Your task to perform on an android device: View the shopping cart on walmart.com. Add usb-c to usb-a to the cart on walmart.com Image 0: 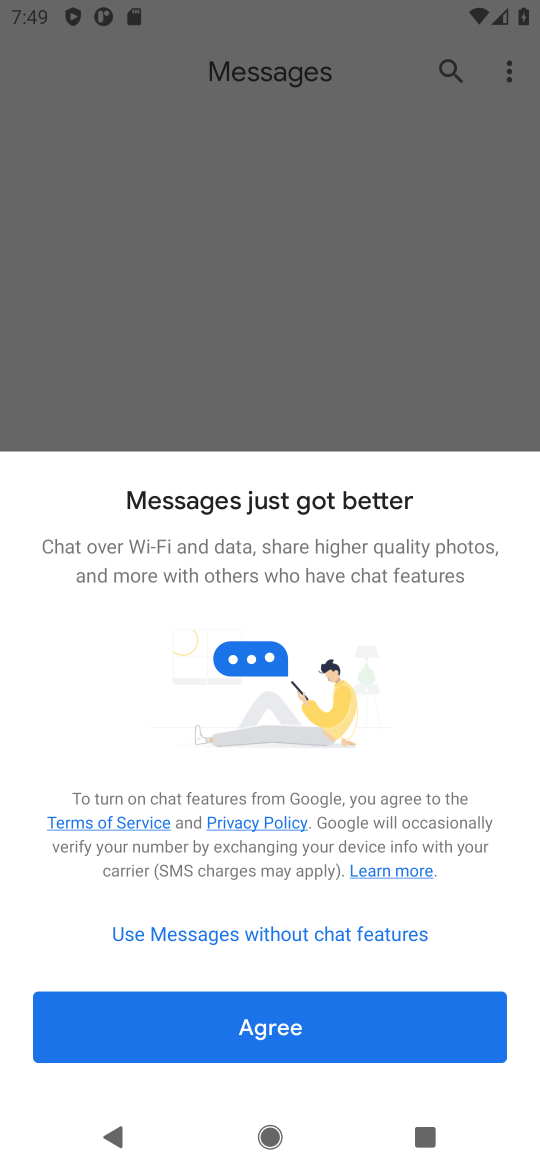
Step 0: press home button
Your task to perform on an android device: View the shopping cart on walmart.com. Add usb-c to usb-a to the cart on walmart.com Image 1: 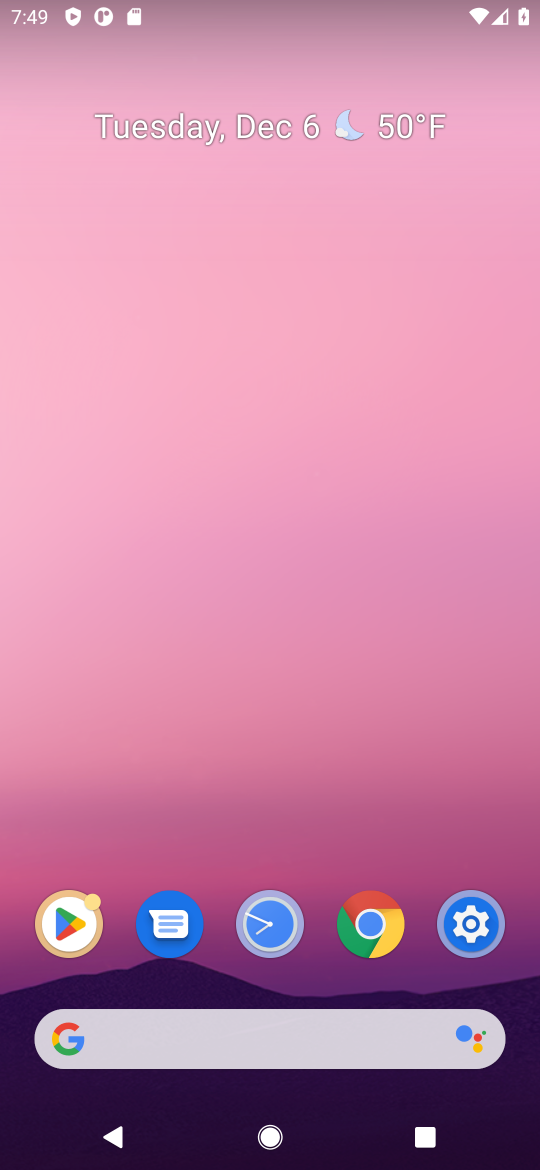
Step 1: click (296, 1036)
Your task to perform on an android device: View the shopping cart on walmart.com. Add usb-c to usb-a to the cart on walmart.com Image 2: 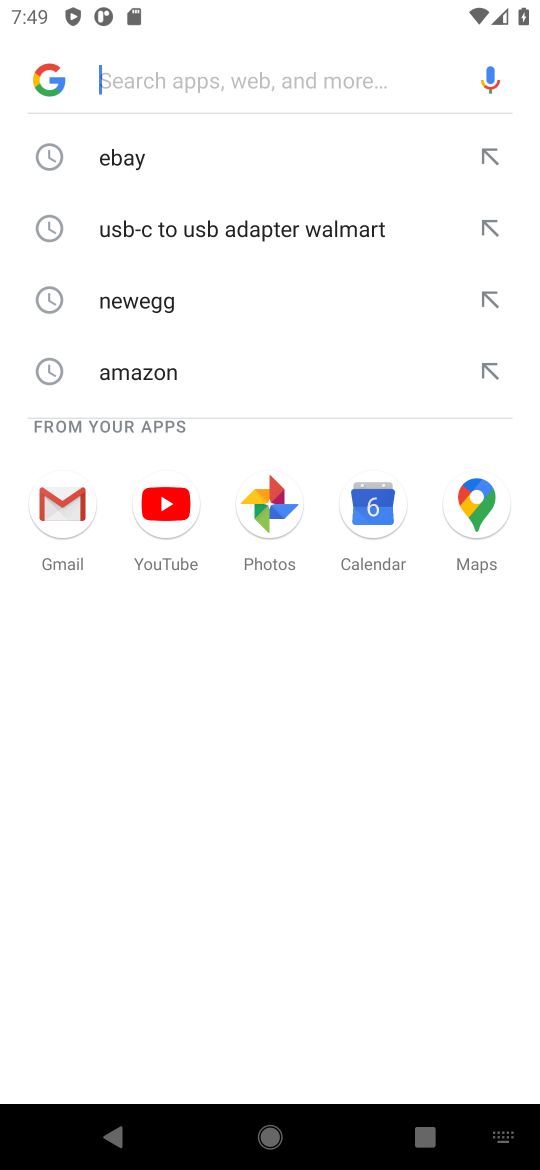
Step 2: type "walmart"
Your task to perform on an android device: View the shopping cart on walmart.com. Add usb-c to usb-a to the cart on walmart.com Image 3: 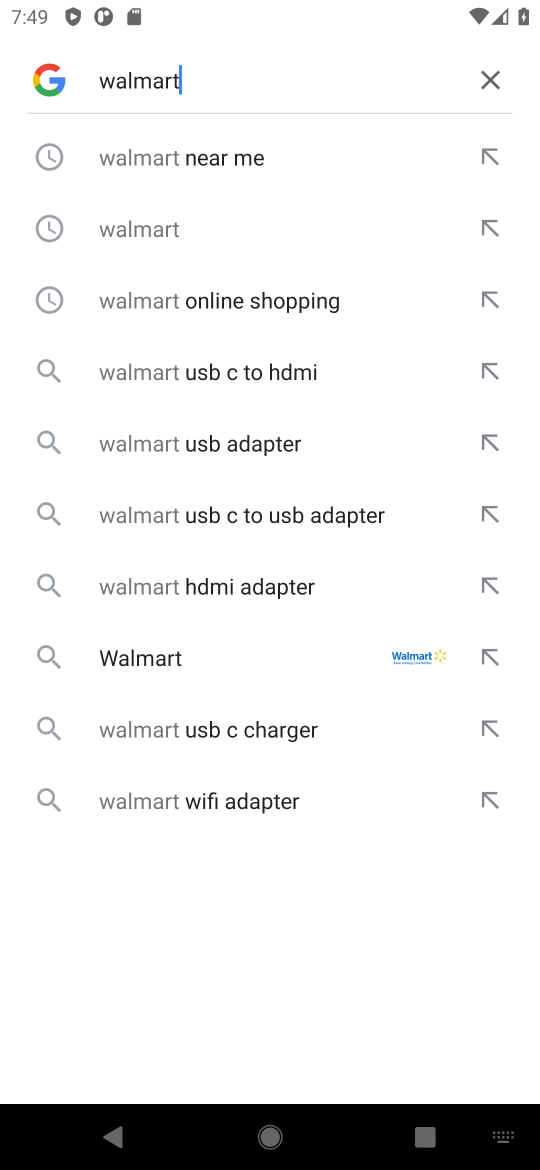
Step 3: click (120, 144)
Your task to perform on an android device: View the shopping cart on walmart.com. Add usb-c to usb-a to the cart on walmart.com Image 4: 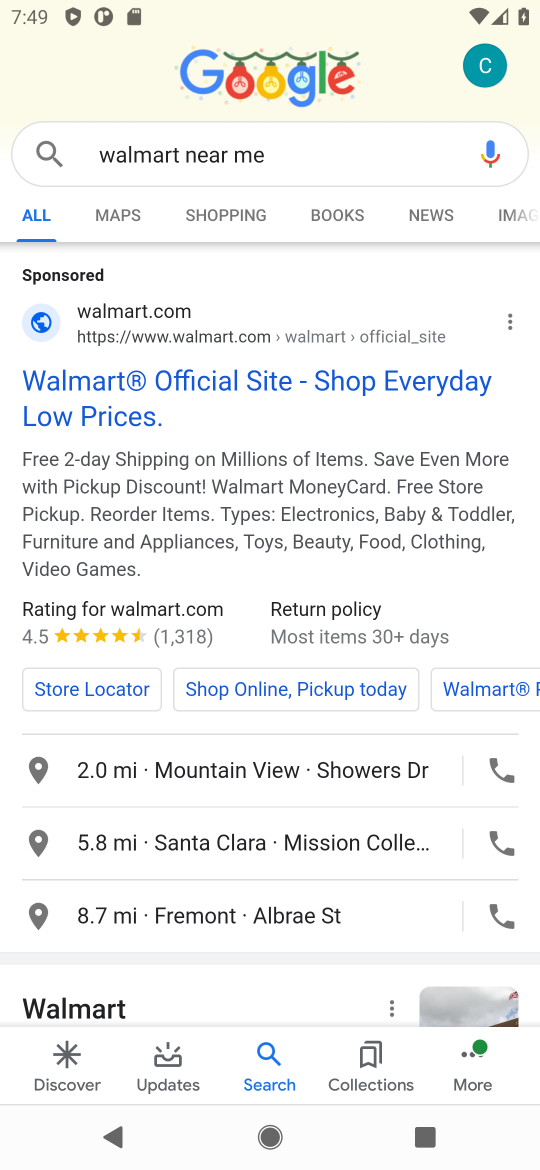
Step 4: click (74, 415)
Your task to perform on an android device: View the shopping cart on walmart.com. Add usb-c to usb-a to the cart on walmart.com Image 5: 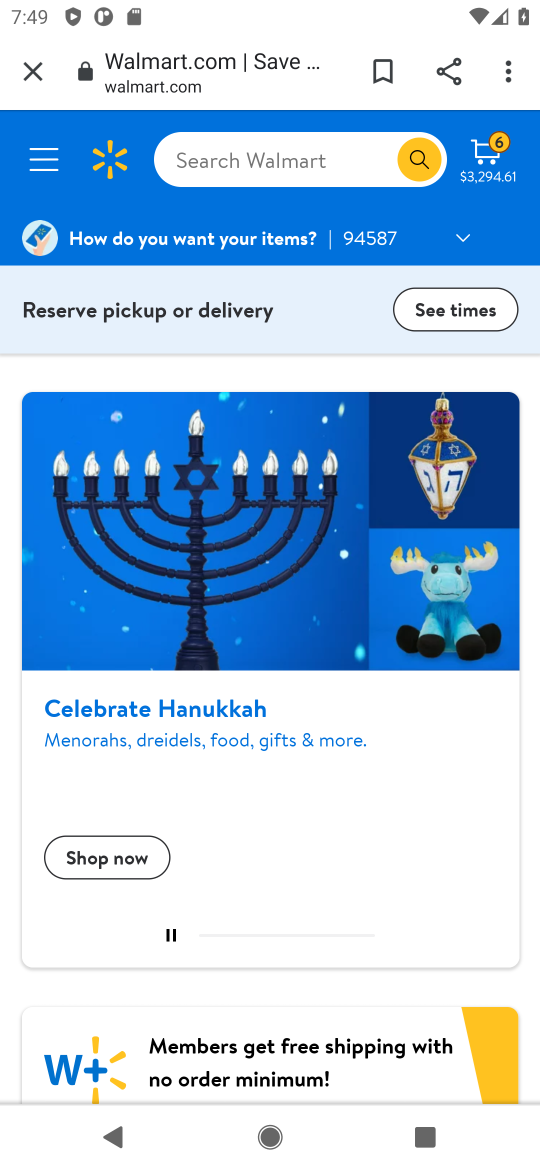
Step 5: click (232, 158)
Your task to perform on an android device: View the shopping cart on walmart.com. Add usb-c to usb-a to the cart on walmart.com Image 6: 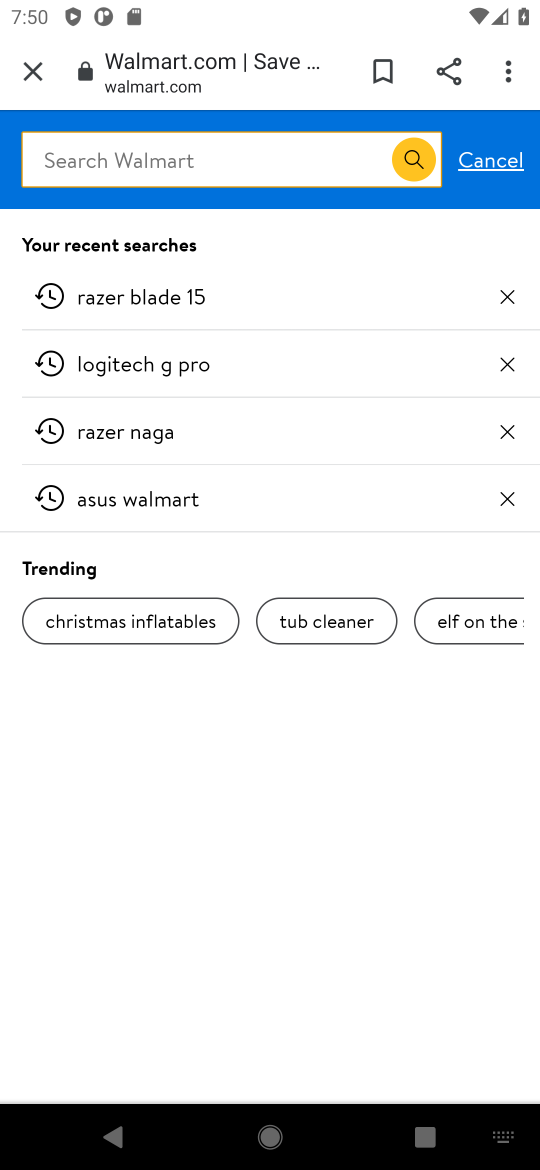
Step 6: type "usb-c to usb-a"
Your task to perform on an android device: View the shopping cart on walmart.com. Add usb-c to usb-a to the cart on walmart.com Image 7: 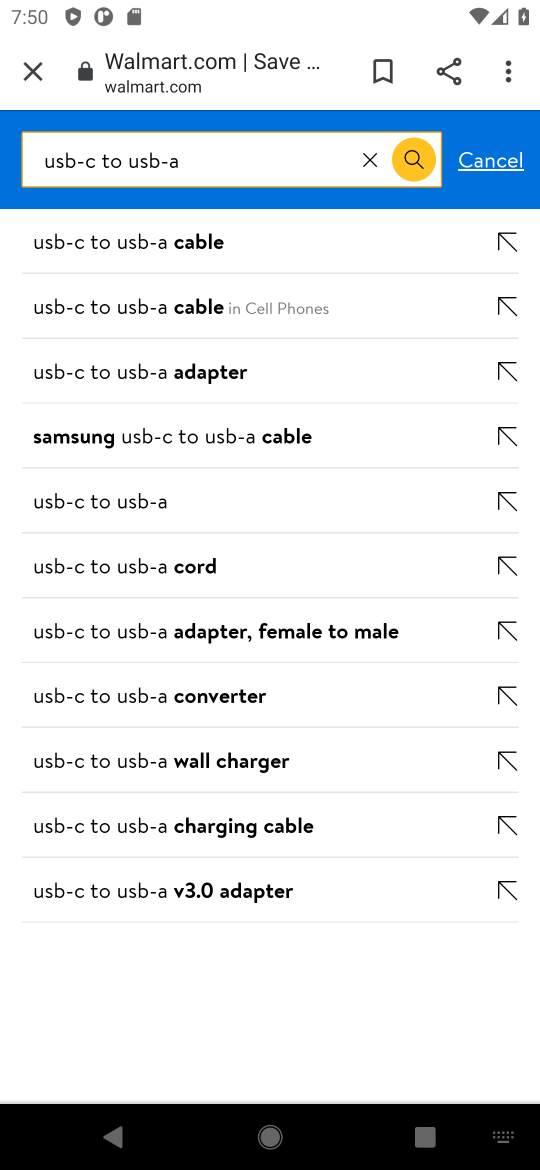
Step 7: click (230, 262)
Your task to perform on an android device: View the shopping cart on walmart.com. Add usb-c to usb-a to the cart on walmart.com Image 8: 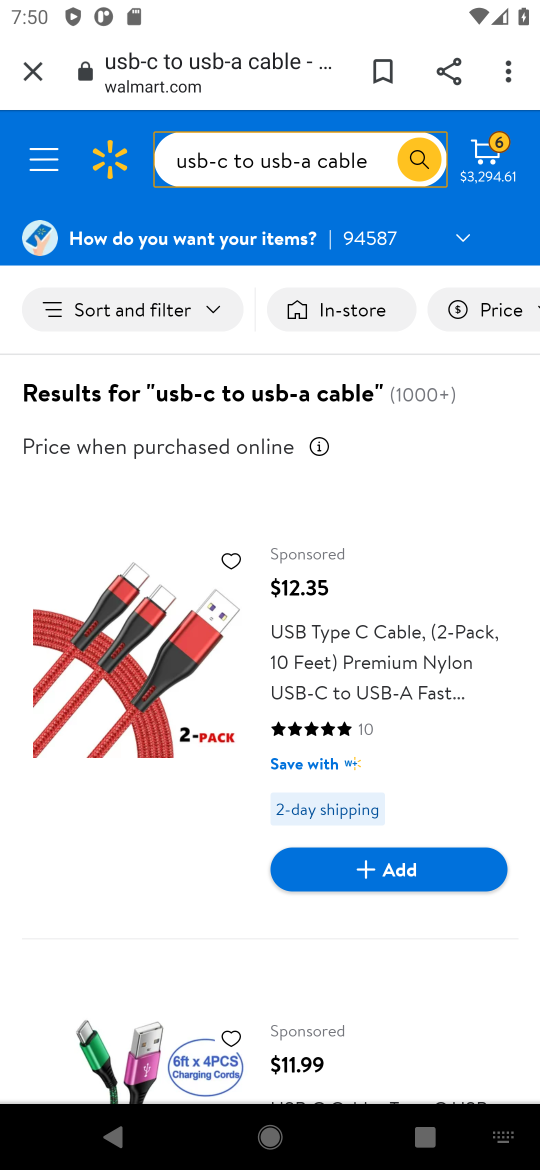
Step 8: click (376, 892)
Your task to perform on an android device: View the shopping cart on walmart.com. Add usb-c to usb-a to the cart on walmart.com Image 9: 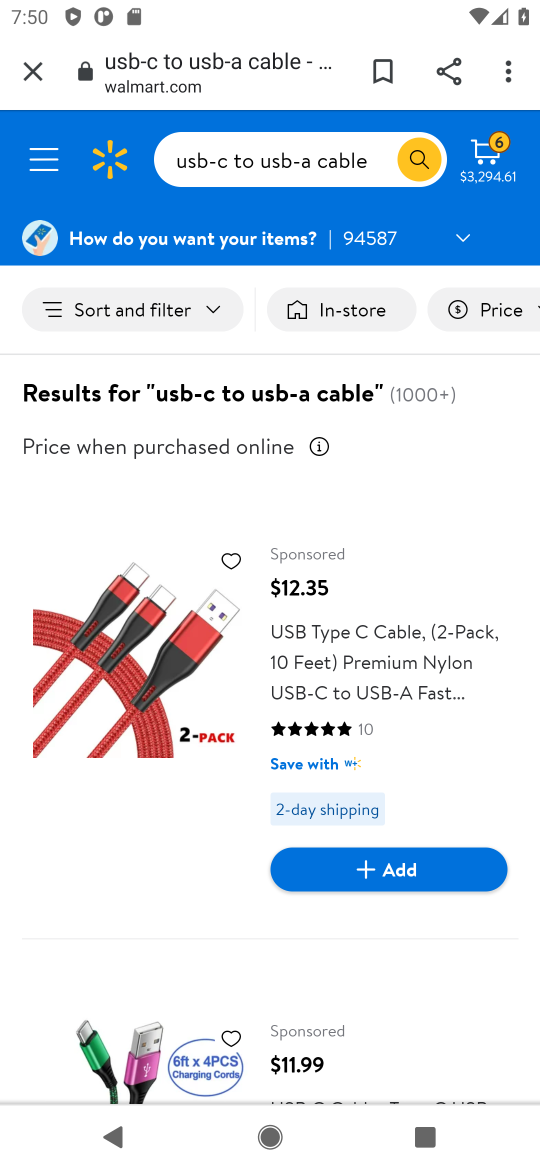
Step 9: task complete